Your task to perform on an android device: find photos in the google photos app Image 0: 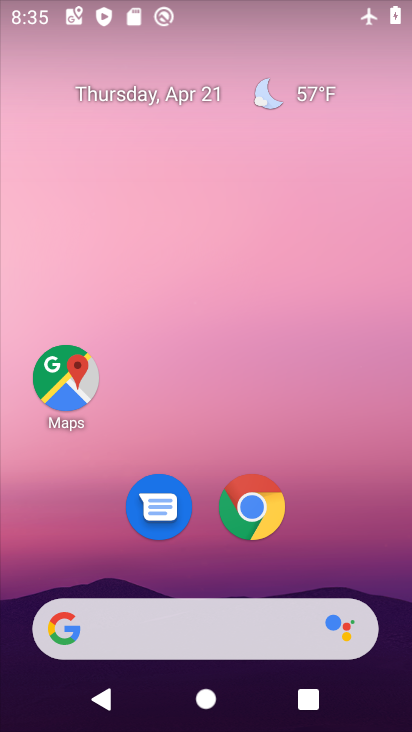
Step 0: drag from (372, 561) to (385, 5)
Your task to perform on an android device: find photos in the google photos app Image 1: 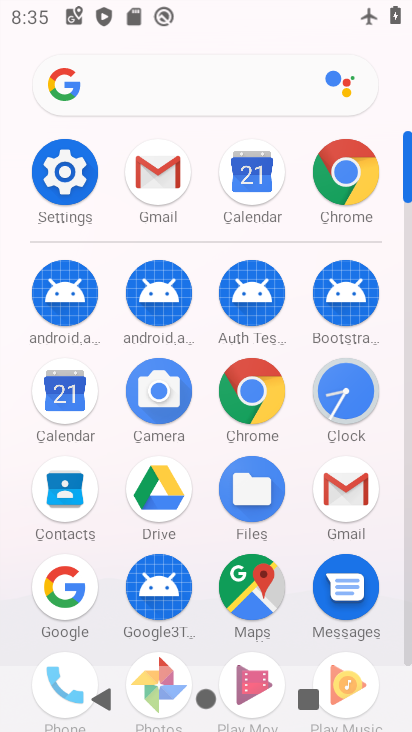
Step 1: click (404, 639)
Your task to perform on an android device: find photos in the google photos app Image 2: 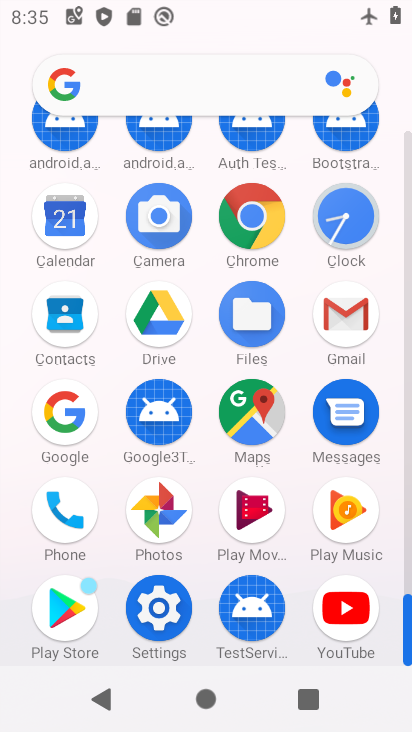
Step 2: click (137, 524)
Your task to perform on an android device: find photos in the google photos app Image 3: 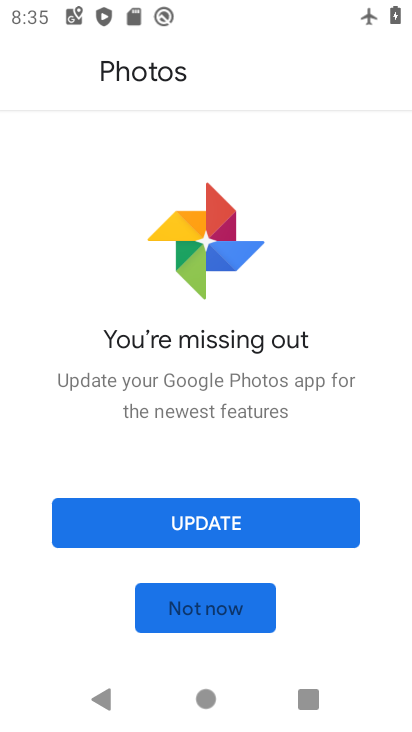
Step 3: click (271, 530)
Your task to perform on an android device: find photos in the google photos app Image 4: 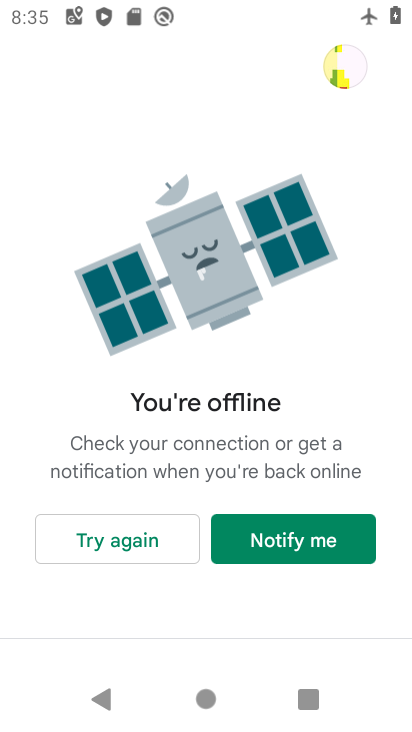
Step 4: drag from (346, 0) to (298, 710)
Your task to perform on an android device: find photos in the google photos app Image 5: 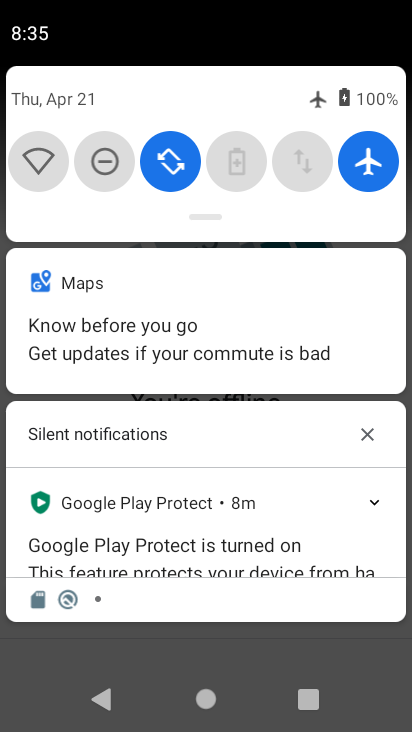
Step 5: click (365, 169)
Your task to perform on an android device: find photos in the google photos app Image 6: 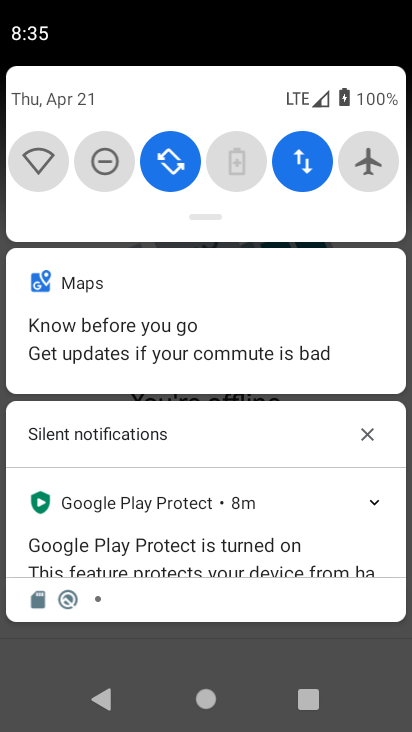
Step 6: drag from (309, 626) to (187, 160)
Your task to perform on an android device: find photos in the google photos app Image 7: 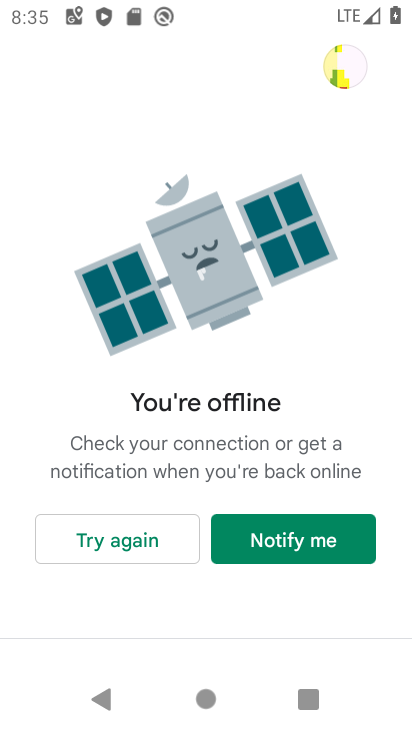
Step 7: click (136, 537)
Your task to perform on an android device: find photos in the google photos app Image 8: 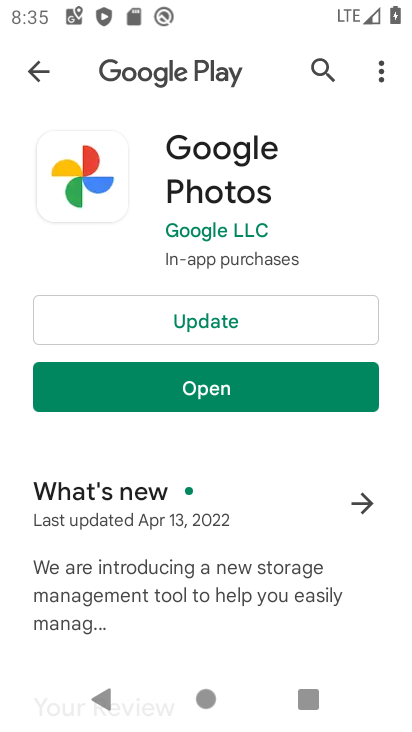
Step 8: click (149, 307)
Your task to perform on an android device: find photos in the google photos app Image 9: 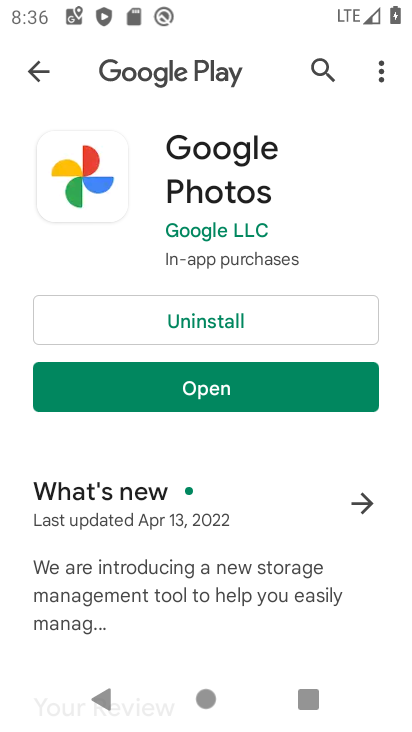
Step 9: click (166, 402)
Your task to perform on an android device: find photos in the google photos app Image 10: 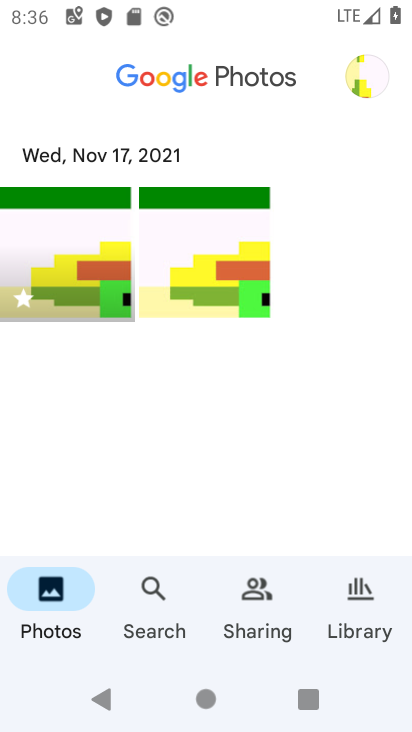
Step 10: click (52, 292)
Your task to perform on an android device: find photos in the google photos app Image 11: 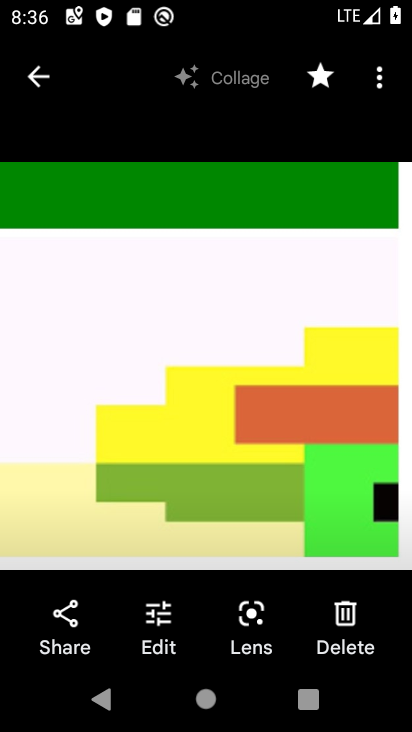
Step 11: task complete